Your task to perform on an android device: turn pop-ups off in chrome Image 0: 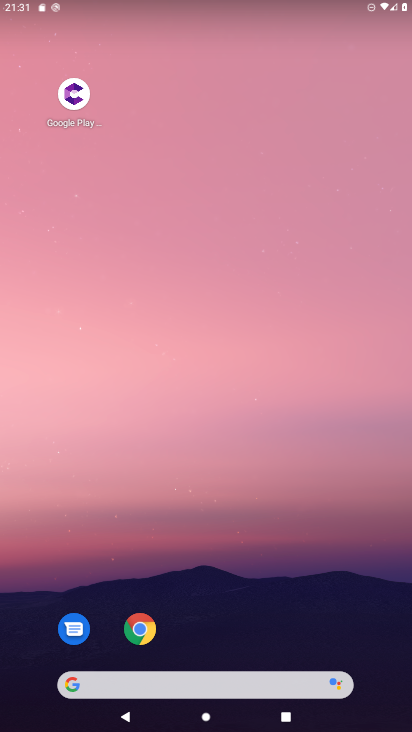
Step 0: drag from (263, 693) to (260, 248)
Your task to perform on an android device: turn pop-ups off in chrome Image 1: 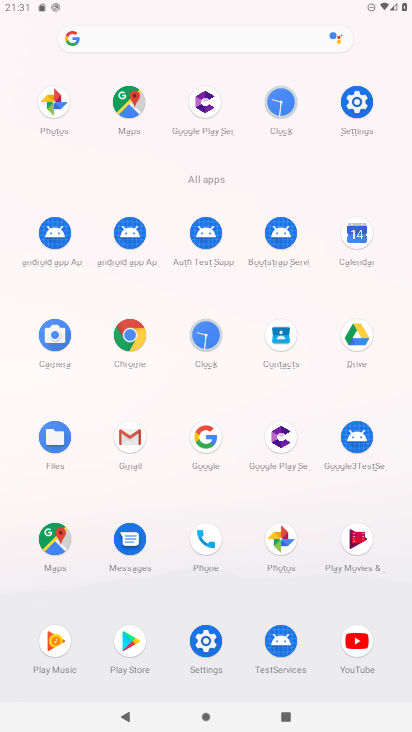
Step 1: click (134, 343)
Your task to perform on an android device: turn pop-ups off in chrome Image 2: 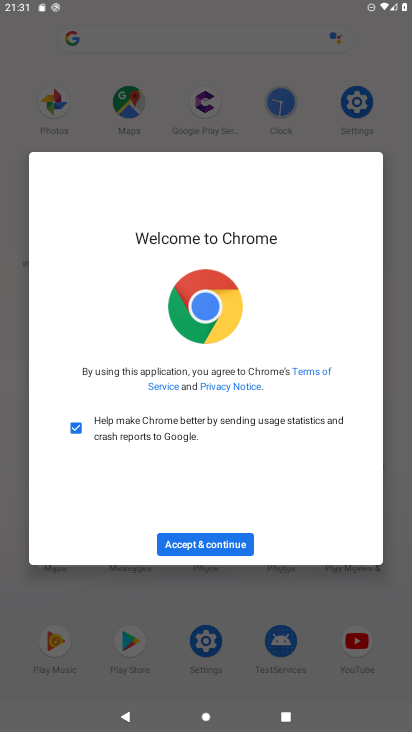
Step 2: click (166, 542)
Your task to perform on an android device: turn pop-ups off in chrome Image 3: 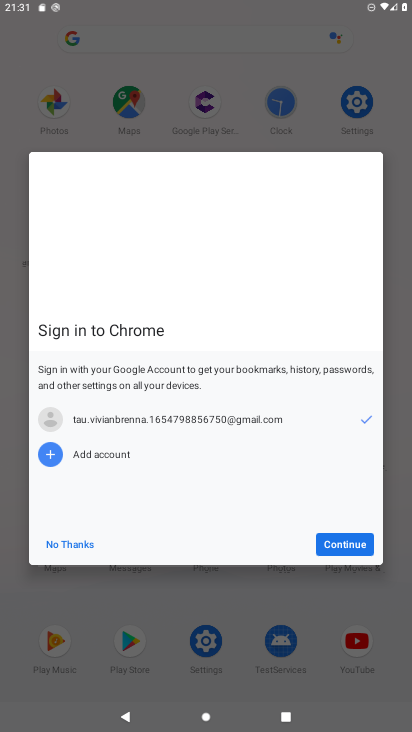
Step 3: click (366, 538)
Your task to perform on an android device: turn pop-ups off in chrome Image 4: 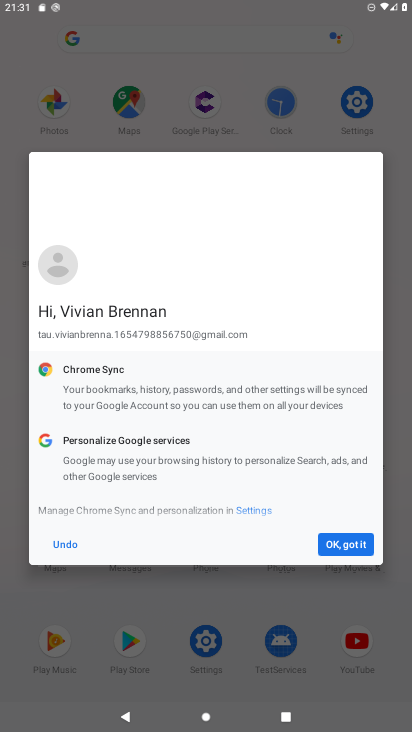
Step 4: click (357, 540)
Your task to perform on an android device: turn pop-ups off in chrome Image 5: 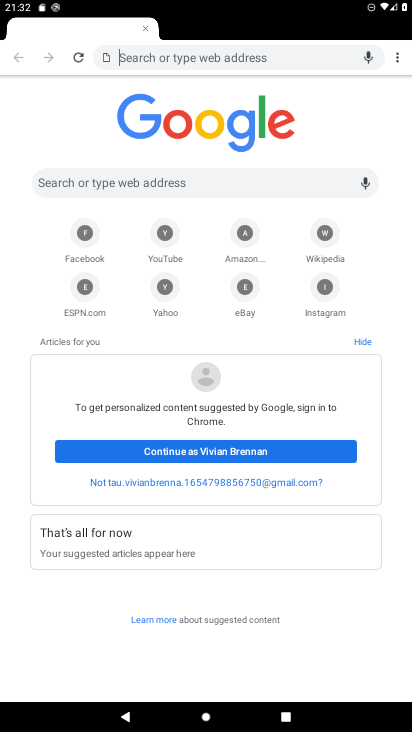
Step 5: click (399, 54)
Your task to perform on an android device: turn pop-ups off in chrome Image 6: 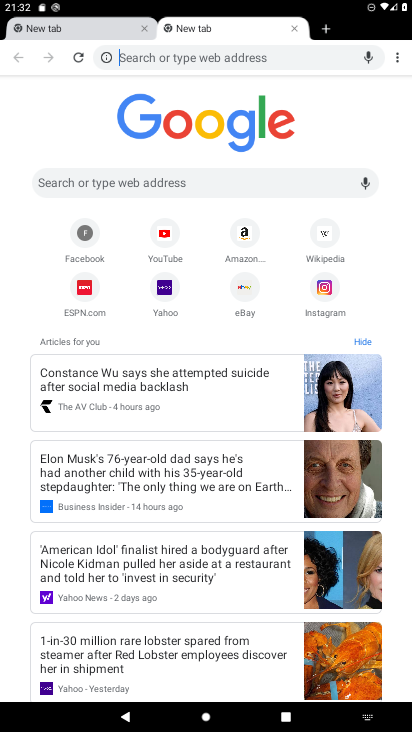
Step 6: click (404, 48)
Your task to perform on an android device: turn pop-ups off in chrome Image 7: 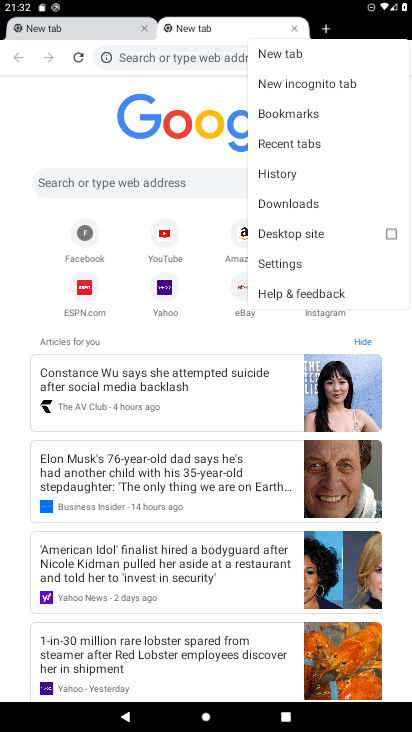
Step 7: click (281, 257)
Your task to perform on an android device: turn pop-ups off in chrome Image 8: 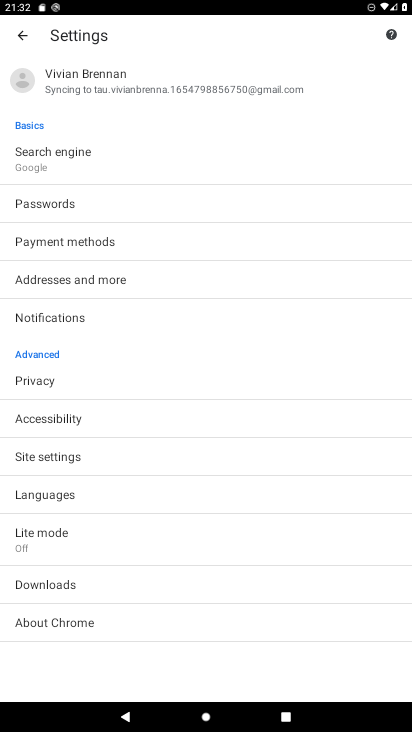
Step 8: click (110, 454)
Your task to perform on an android device: turn pop-ups off in chrome Image 9: 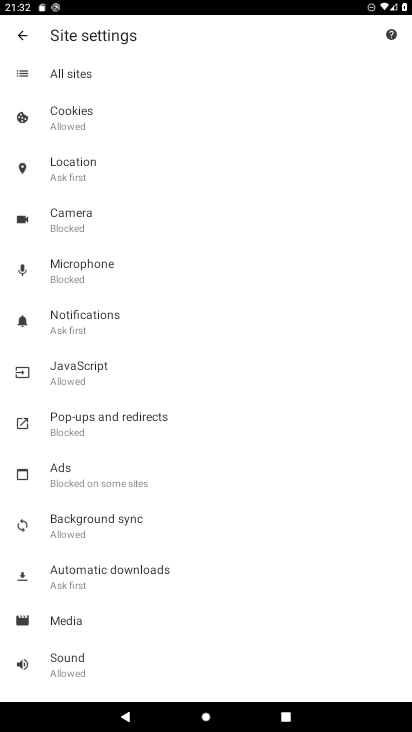
Step 9: click (127, 418)
Your task to perform on an android device: turn pop-ups off in chrome Image 10: 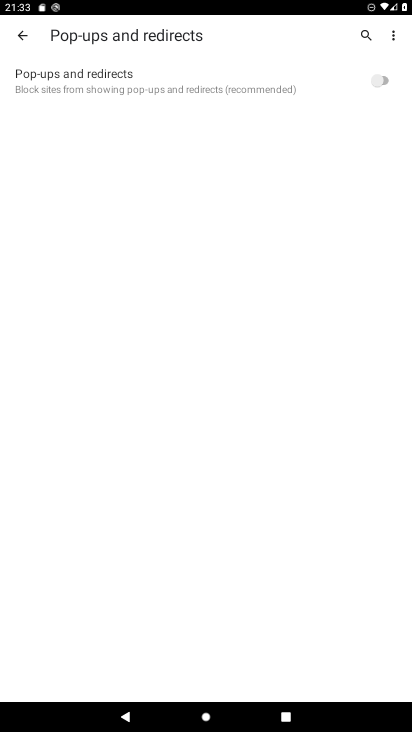
Step 10: click (368, 78)
Your task to perform on an android device: turn pop-ups off in chrome Image 11: 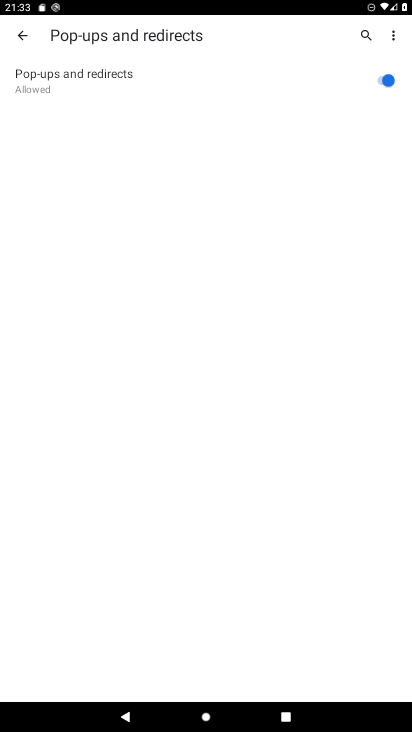
Step 11: click (368, 78)
Your task to perform on an android device: turn pop-ups off in chrome Image 12: 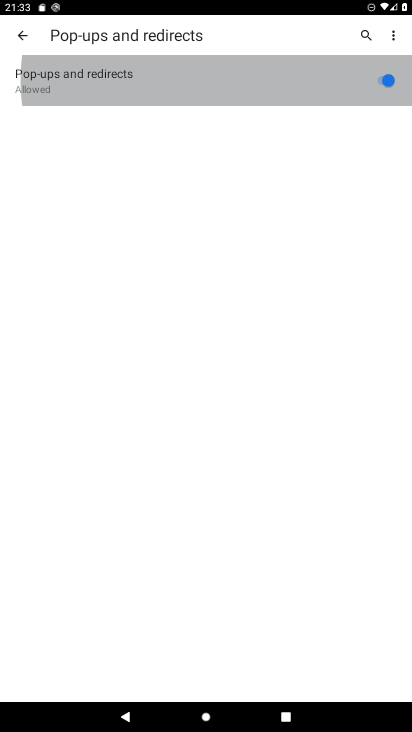
Step 12: click (368, 78)
Your task to perform on an android device: turn pop-ups off in chrome Image 13: 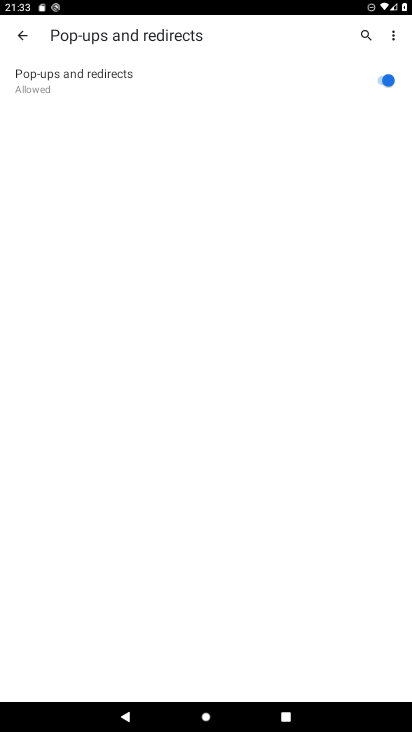
Step 13: task complete